Your task to perform on an android device: turn on showing notifications on the lock screen Image 0: 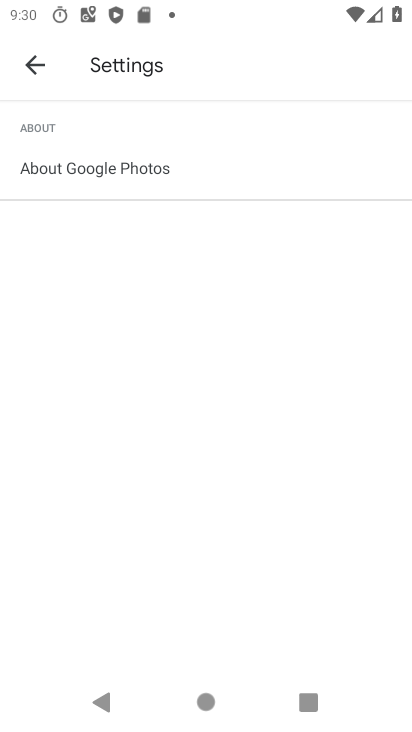
Step 0: press home button
Your task to perform on an android device: turn on showing notifications on the lock screen Image 1: 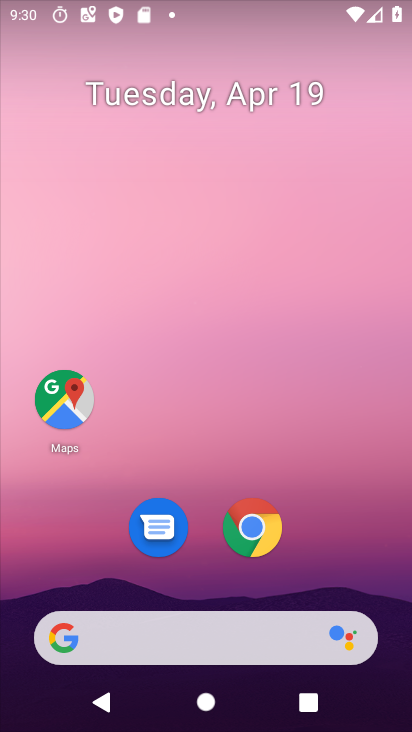
Step 1: drag from (247, 671) to (285, 170)
Your task to perform on an android device: turn on showing notifications on the lock screen Image 2: 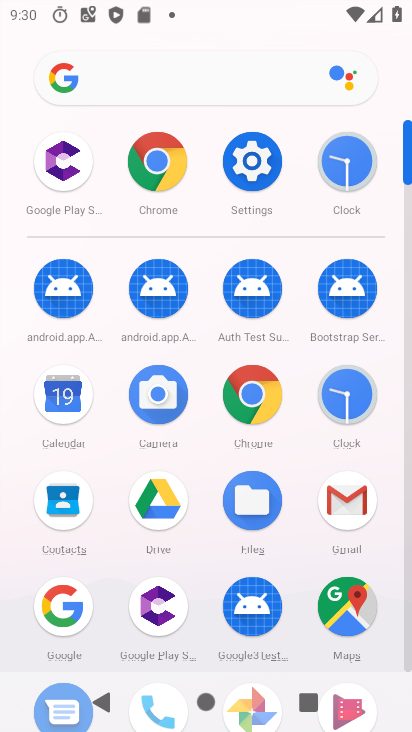
Step 2: click (251, 166)
Your task to perform on an android device: turn on showing notifications on the lock screen Image 3: 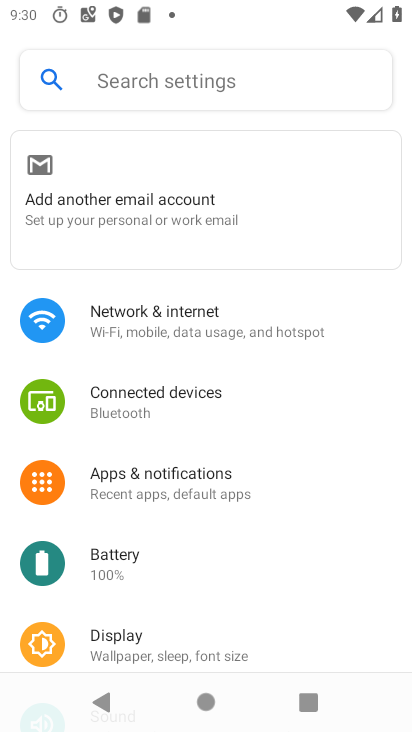
Step 3: click (167, 89)
Your task to perform on an android device: turn on showing notifications on the lock screen Image 4: 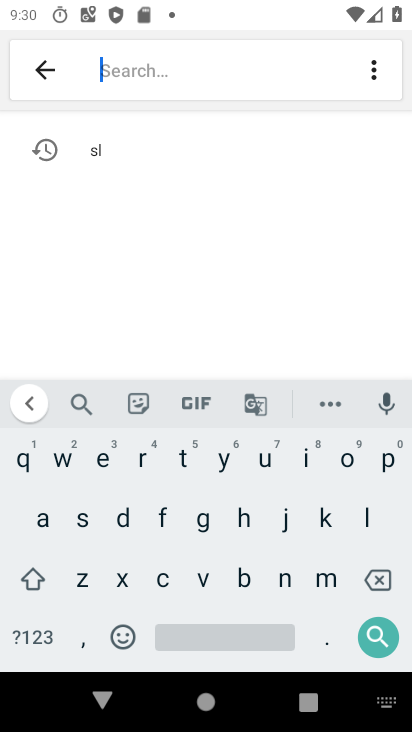
Step 4: click (286, 572)
Your task to perform on an android device: turn on showing notifications on the lock screen Image 5: 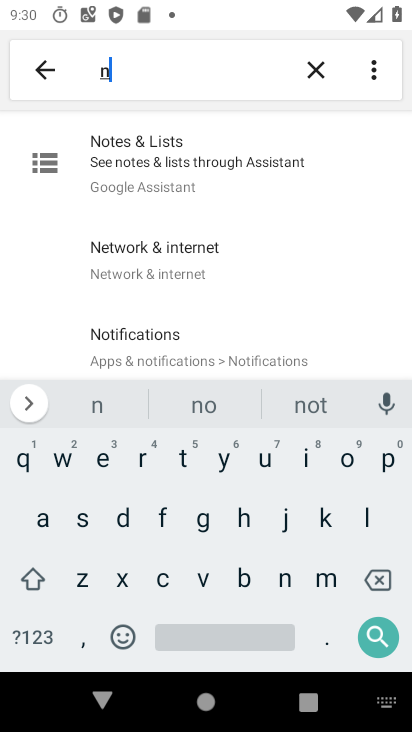
Step 5: click (350, 462)
Your task to perform on an android device: turn on showing notifications on the lock screen Image 6: 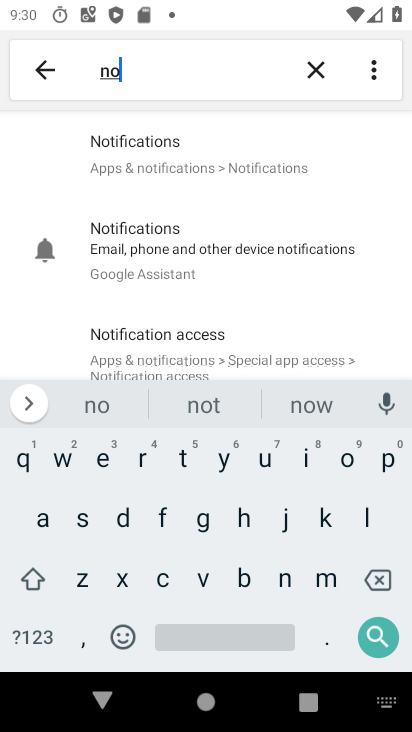
Step 6: click (195, 157)
Your task to perform on an android device: turn on showing notifications on the lock screen Image 7: 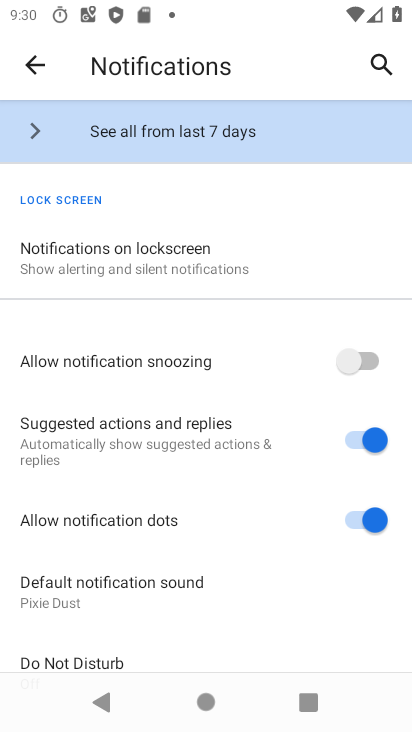
Step 7: click (119, 266)
Your task to perform on an android device: turn on showing notifications on the lock screen Image 8: 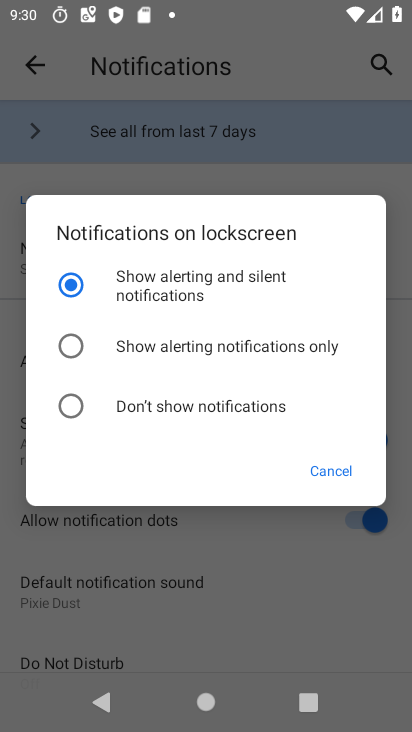
Step 8: task complete